Your task to perform on an android device: delete browsing data in the chrome app Image 0: 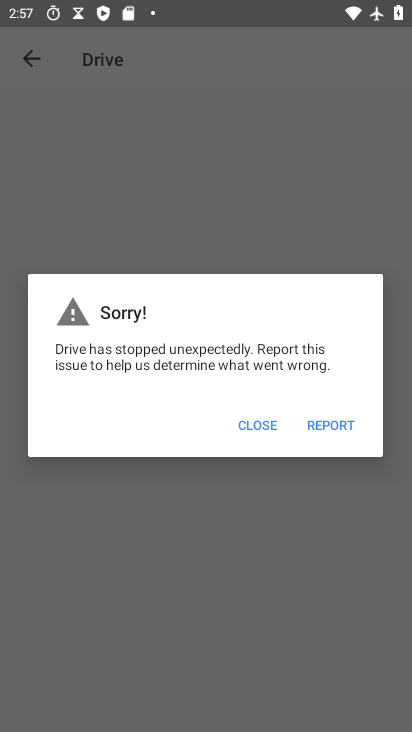
Step 0: press home button
Your task to perform on an android device: delete browsing data in the chrome app Image 1: 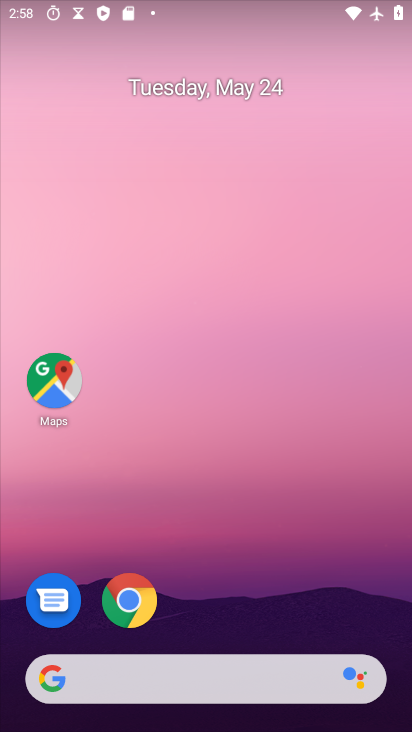
Step 1: click (141, 609)
Your task to perform on an android device: delete browsing data in the chrome app Image 2: 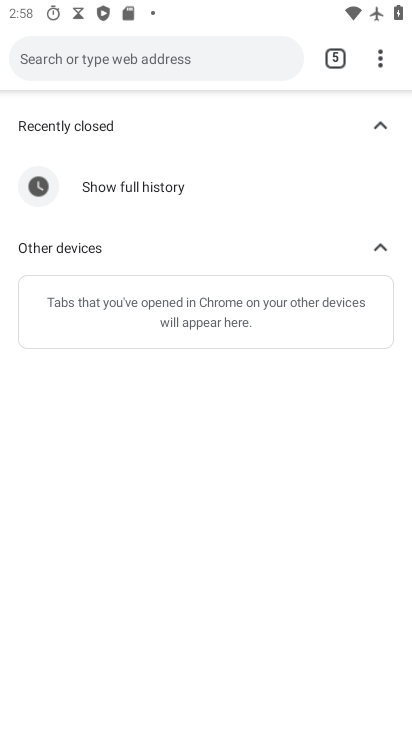
Step 2: click (377, 49)
Your task to perform on an android device: delete browsing data in the chrome app Image 3: 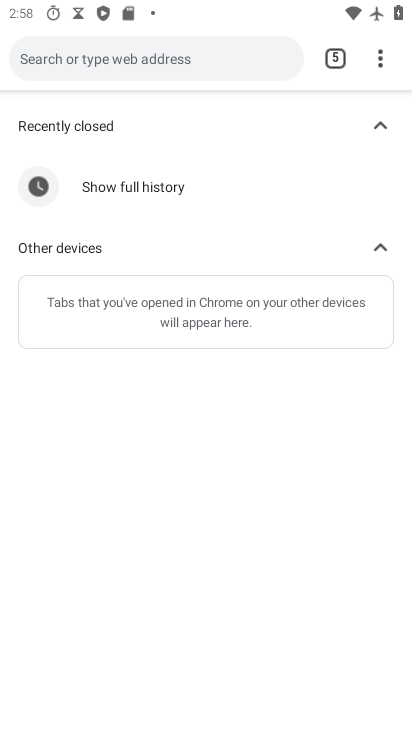
Step 3: click (378, 54)
Your task to perform on an android device: delete browsing data in the chrome app Image 4: 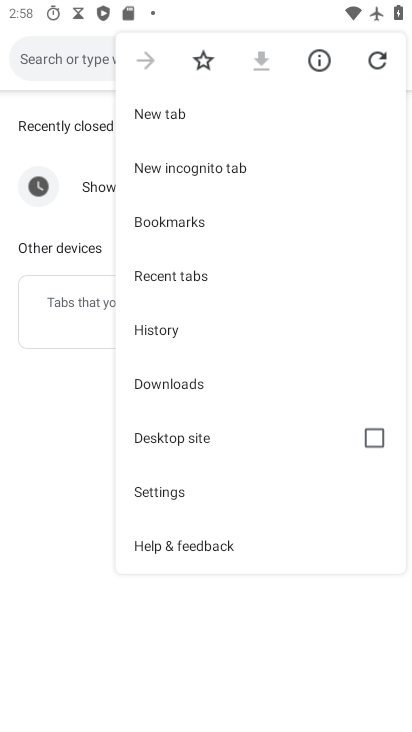
Step 4: click (188, 326)
Your task to perform on an android device: delete browsing data in the chrome app Image 5: 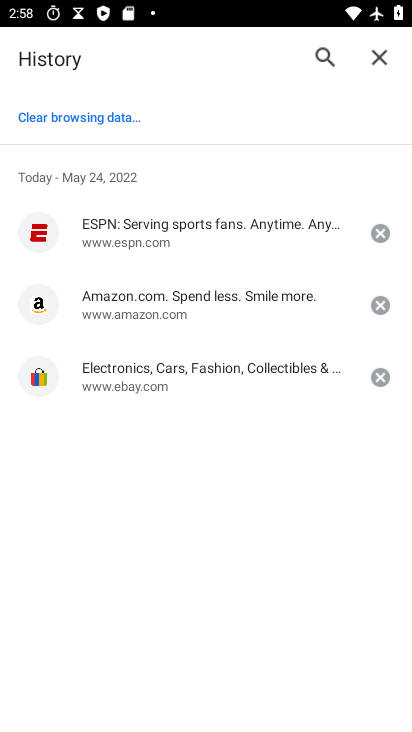
Step 5: click (109, 118)
Your task to perform on an android device: delete browsing data in the chrome app Image 6: 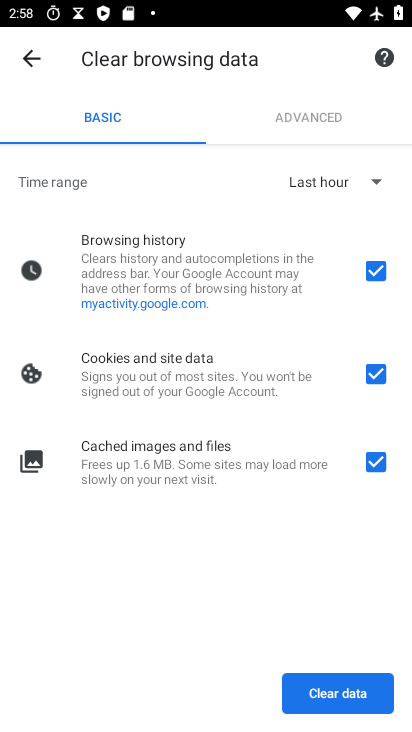
Step 6: click (349, 691)
Your task to perform on an android device: delete browsing data in the chrome app Image 7: 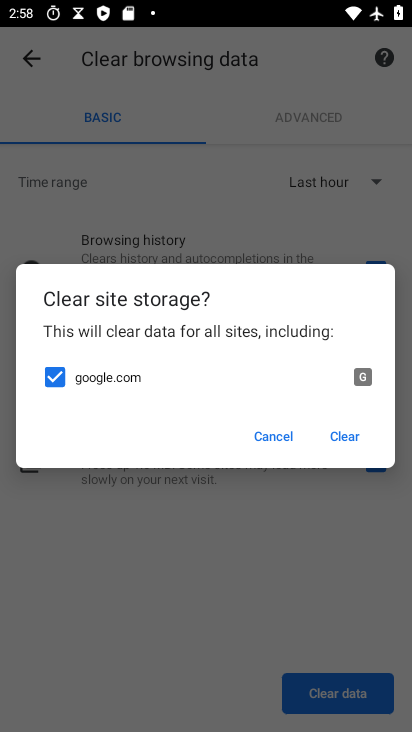
Step 7: click (350, 440)
Your task to perform on an android device: delete browsing data in the chrome app Image 8: 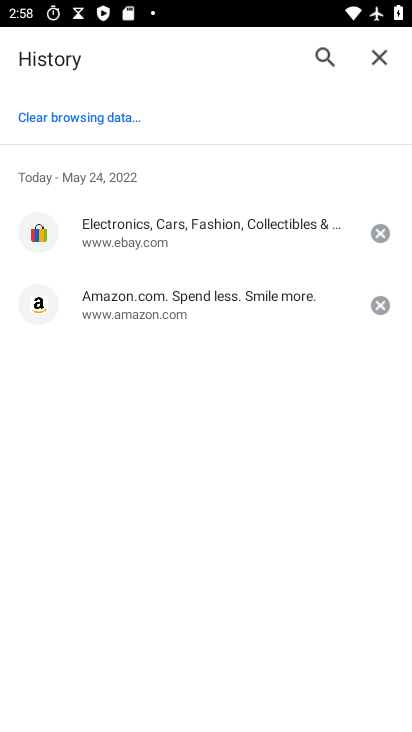
Step 8: click (111, 114)
Your task to perform on an android device: delete browsing data in the chrome app Image 9: 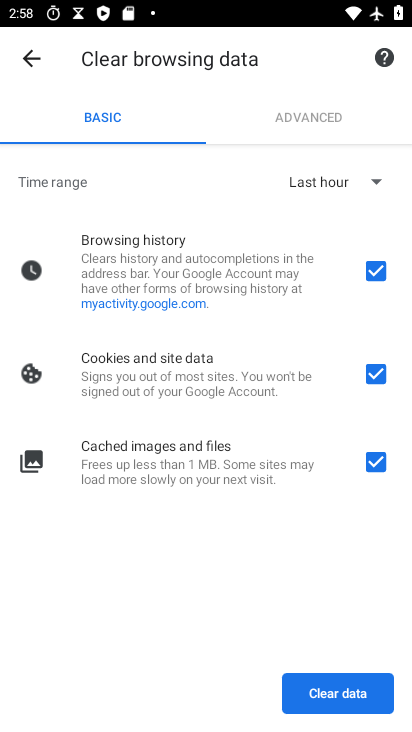
Step 9: click (356, 700)
Your task to perform on an android device: delete browsing data in the chrome app Image 10: 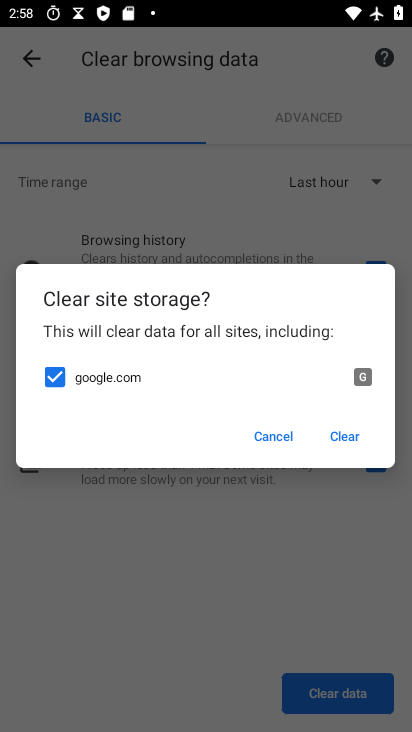
Step 10: click (351, 437)
Your task to perform on an android device: delete browsing data in the chrome app Image 11: 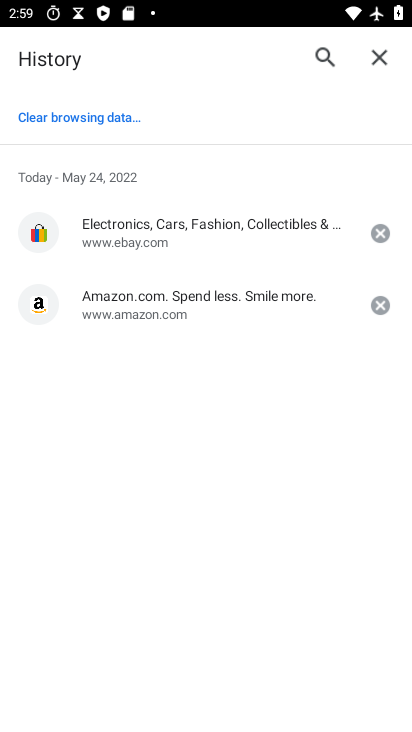
Step 11: task complete